Your task to perform on an android device: turn off notifications in google photos Image 0: 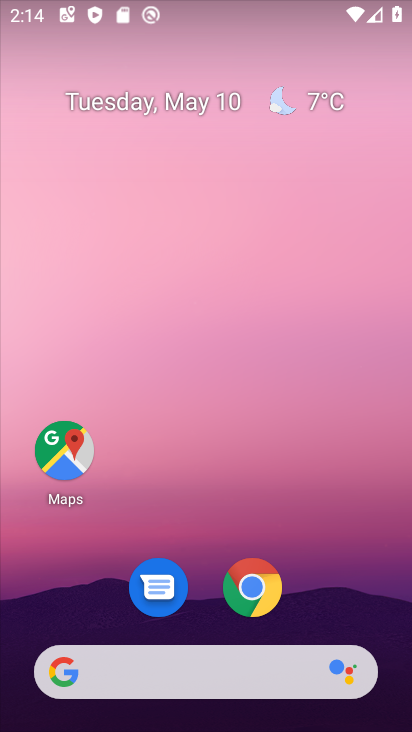
Step 0: drag from (341, 595) to (307, 174)
Your task to perform on an android device: turn off notifications in google photos Image 1: 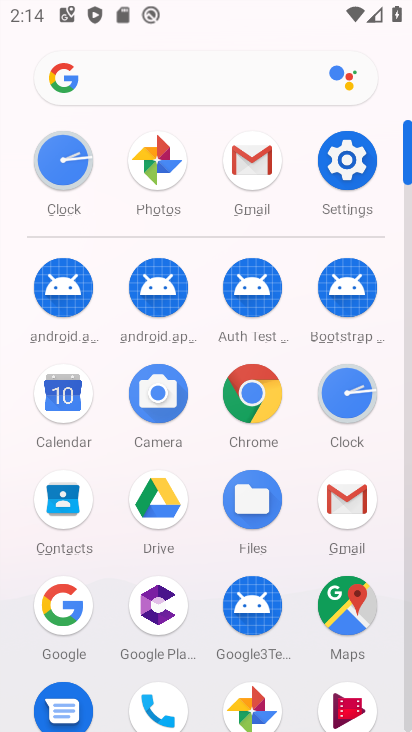
Step 1: click (235, 702)
Your task to perform on an android device: turn off notifications in google photos Image 2: 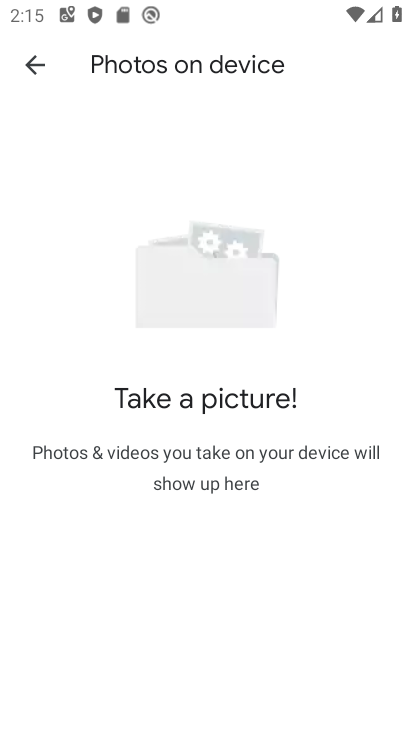
Step 2: click (38, 58)
Your task to perform on an android device: turn off notifications in google photos Image 3: 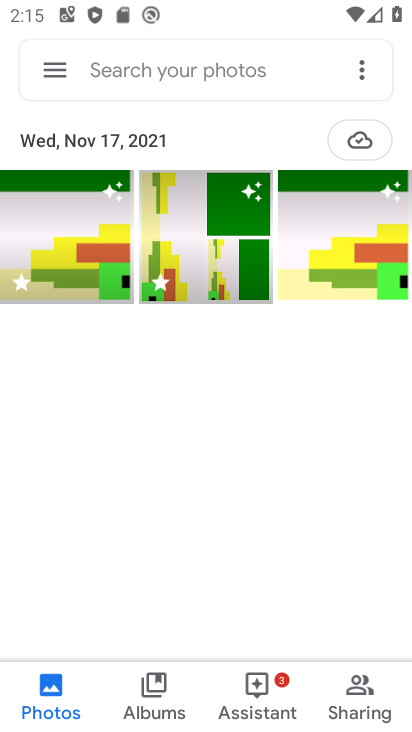
Step 3: click (44, 67)
Your task to perform on an android device: turn off notifications in google photos Image 4: 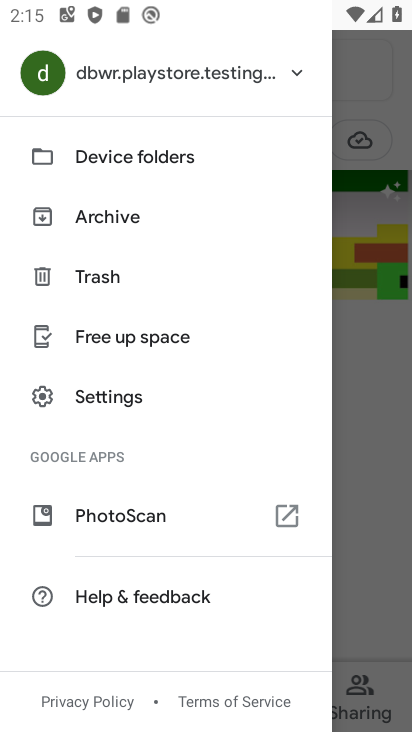
Step 4: click (133, 402)
Your task to perform on an android device: turn off notifications in google photos Image 5: 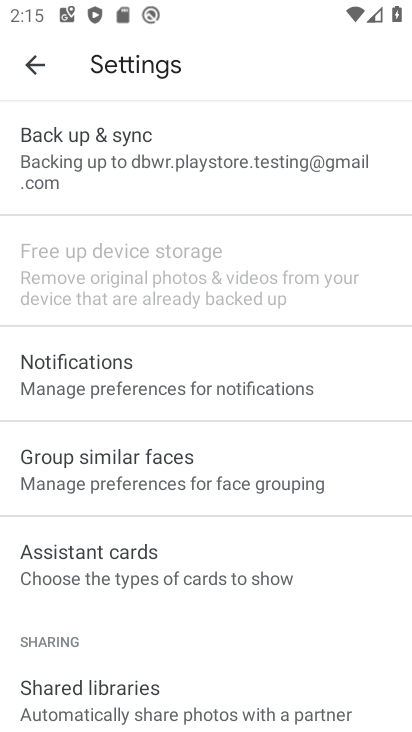
Step 5: click (150, 372)
Your task to perform on an android device: turn off notifications in google photos Image 6: 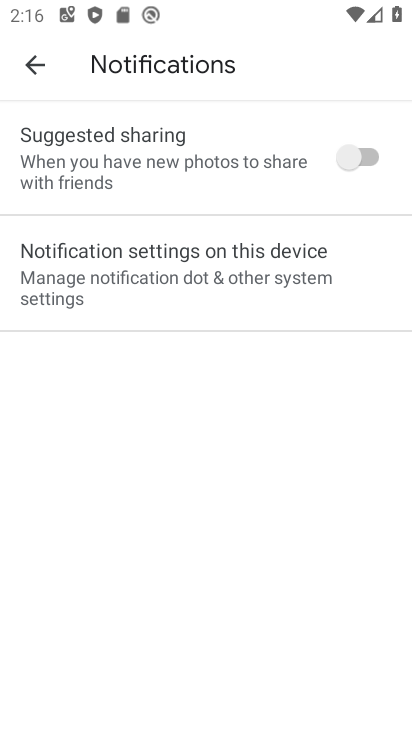
Step 6: click (143, 279)
Your task to perform on an android device: turn off notifications in google photos Image 7: 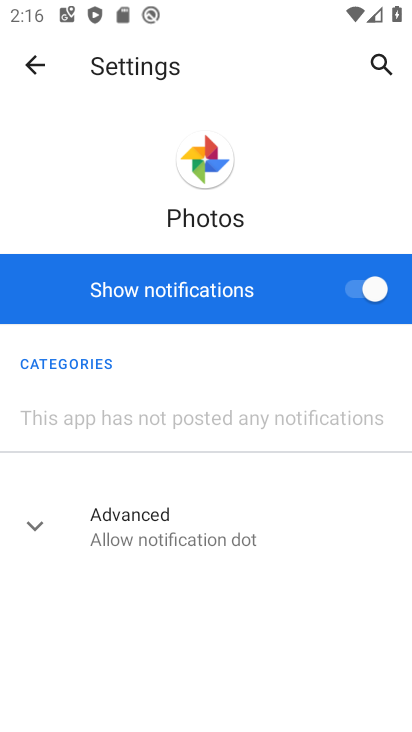
Step 7: click (366, 296)
Your task to perform on an android device: turn off notifications in google photos Image 8: 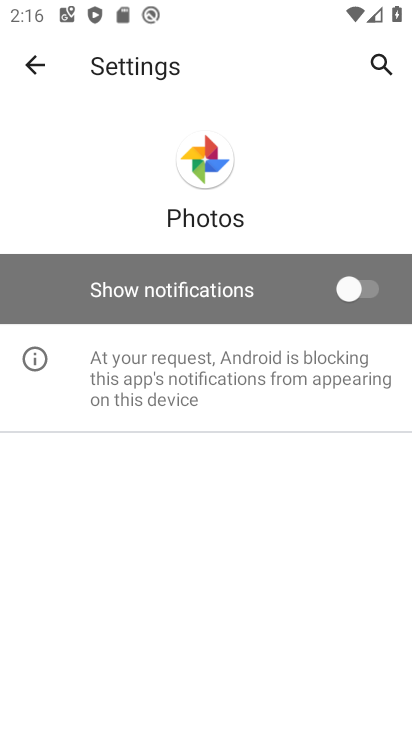
Step 8: task complete